Your task to perform on an android device: Open network settings Image 0: 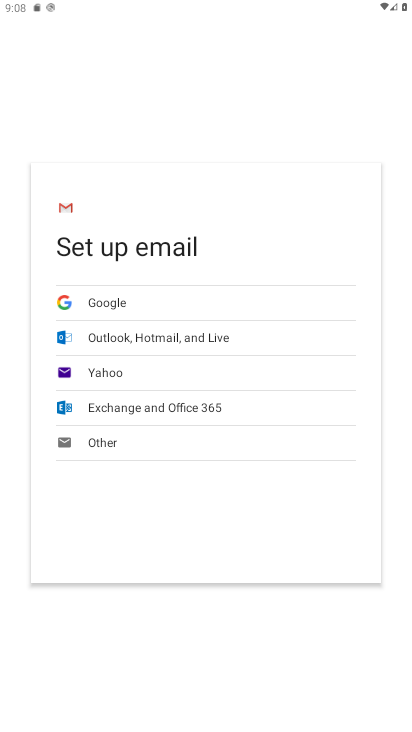
Step 0: press home button
Your task to perform on an android device: Open network settings Image 1: 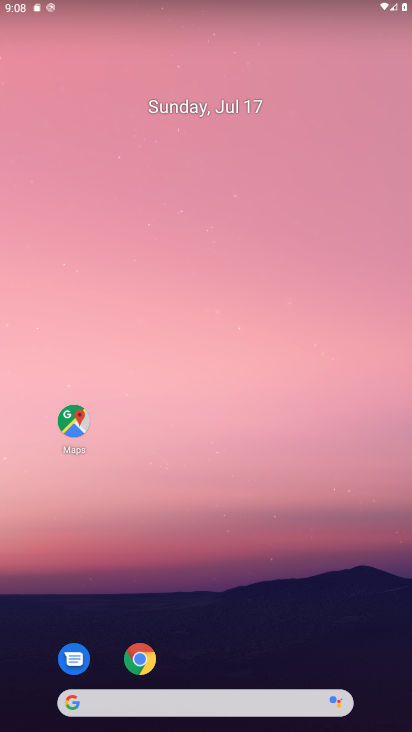
Step 1: drag from (221, 701) to (242, 172)
Your task to perform on an android device: Open network settings Image 2: 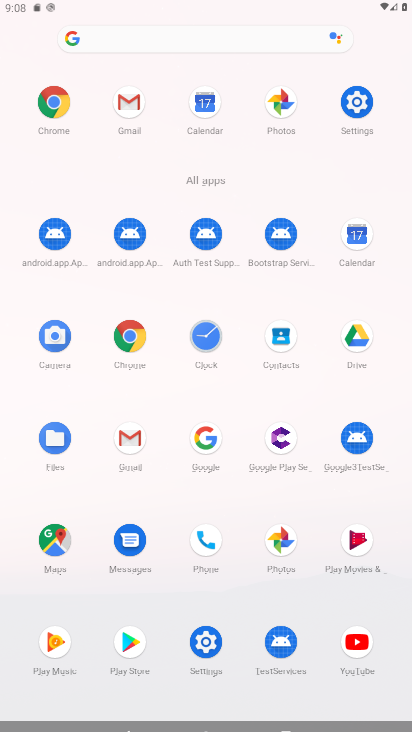
Step 2: click (350, 108)
Your task to perform on an android device: Open network settings Image 3: 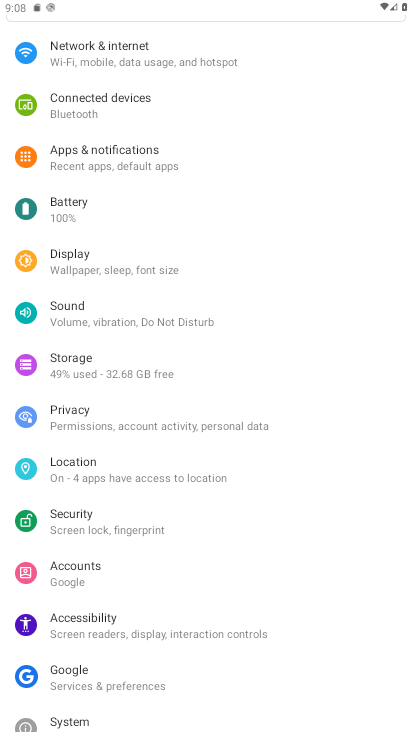
Step 3: click (125, 52)
Your task to perform on an android device: Open network settings Image 4: 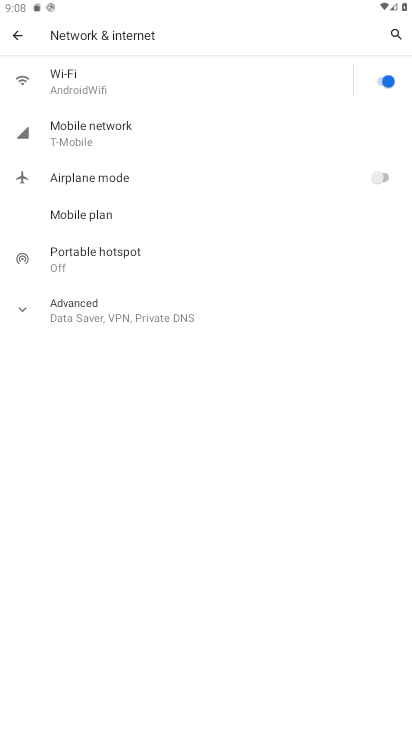
Step 4: task complete